Your task to perform on an android device: Open Google Chrome and click the shortcut for Amazon.com Image 0: 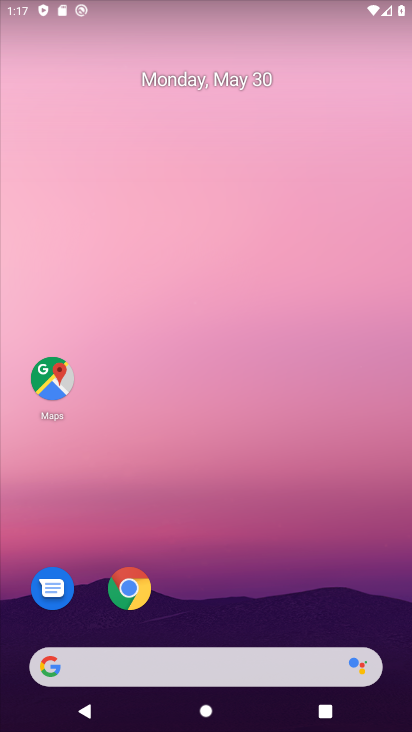
Step 0: press home button
Your task to perform on an android device: Open Google Chrome and click the shortcut for Amazon.com Image 1: 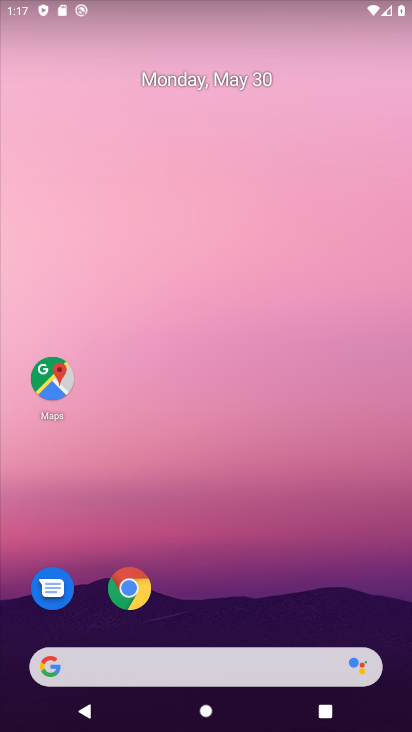
Step 1: click (125, 588)
Your task to perform on an android device: Open Google Chrome and click the shortcut for Amazon.com Image 2: 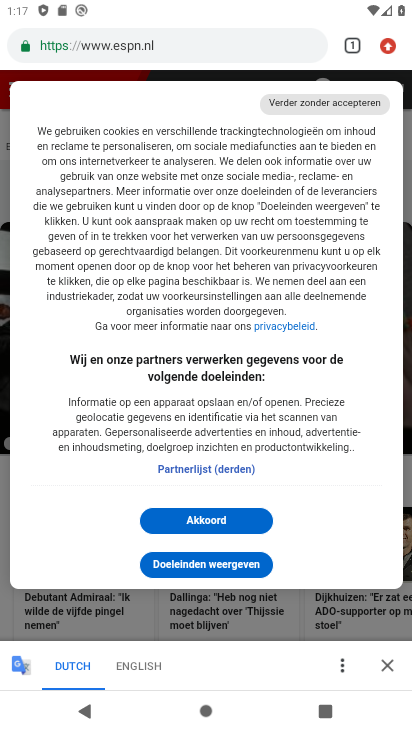
Step 2: press back button
Your task to perform on an android device: Open Google Chrome and click the shortcut for Amazon.com Image 3: 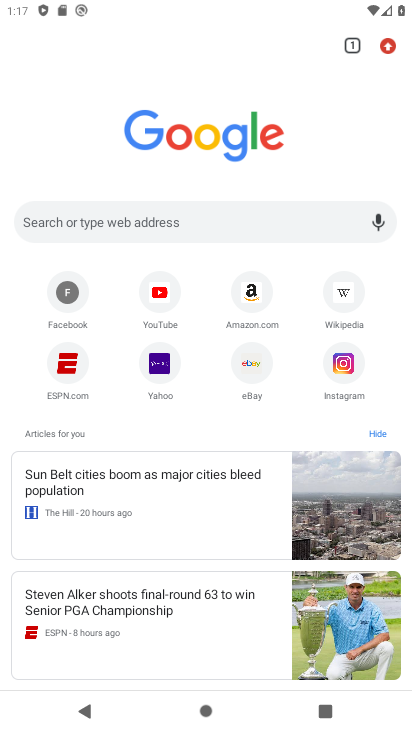
Step 3: click (244, 294)
Your task to perform on an android device: Open Google Chrome and click the shortcut for Amazon.com Image 4: 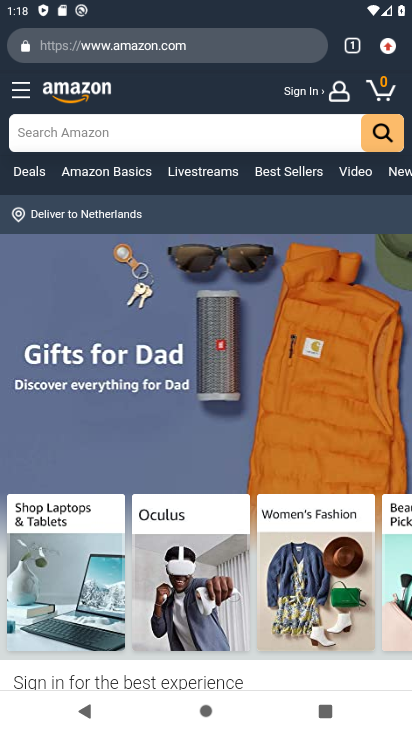
Step 4: task complete